Your task to perform on an android device: Open my contact list Image 0: 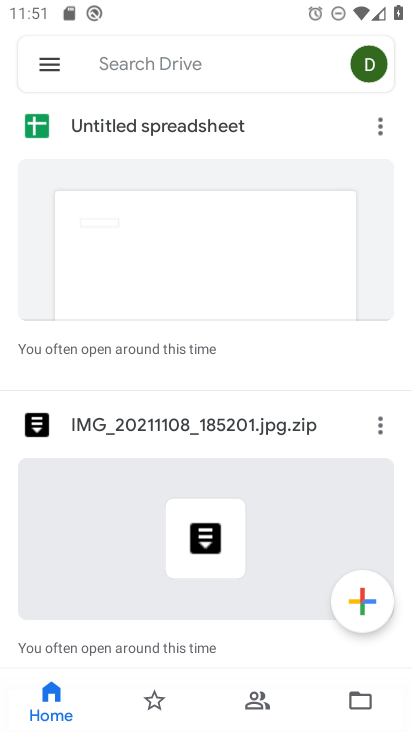
Step 0: press home button
Your task to perform on an android device: Open my contact list Image 1: 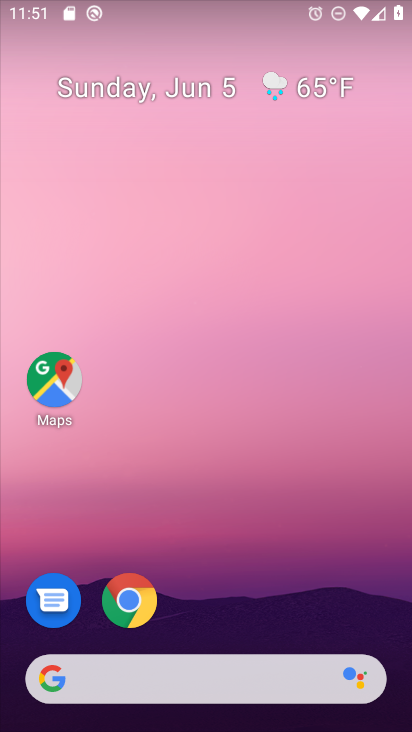
Step 1: drag from (395, 616) to (268, 38)
Your task to perform on an android device: Open my contact list Image 2: 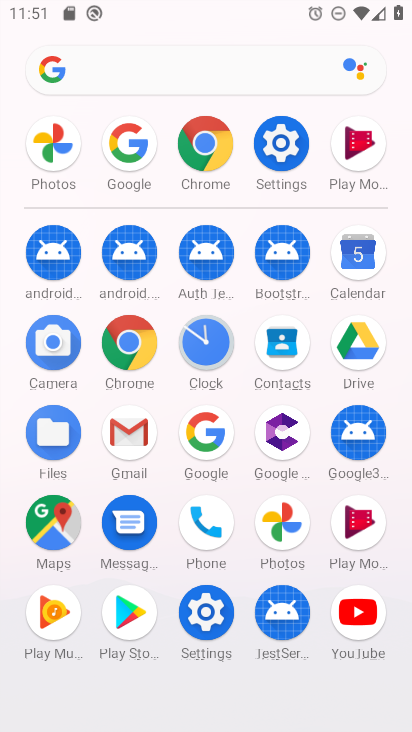
Step 2: click (290, 354)
Your task to perform on an android device: Open my contact list Image 3: 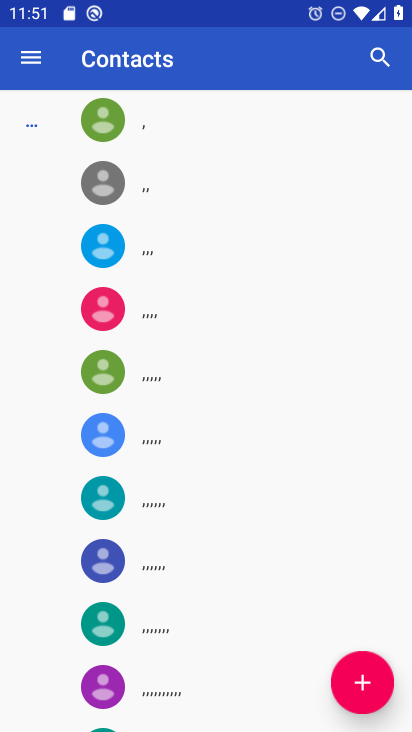
Step 3: task complete